Your task to perform on an android device: turn notification dots off Image 0: 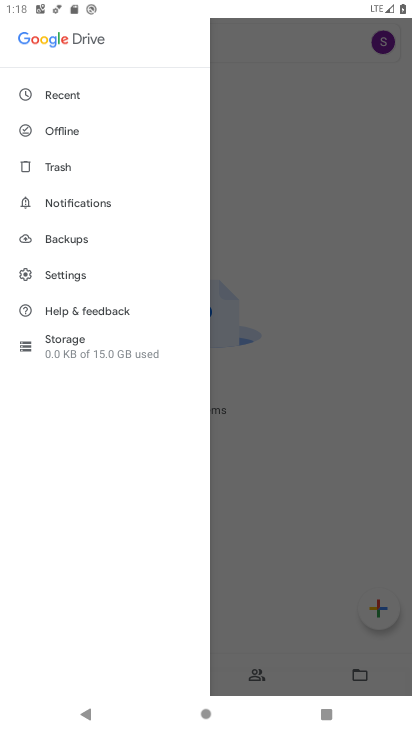
Step 0: press home button
Your task to perform on an android device: turn notification dots off Image 1: 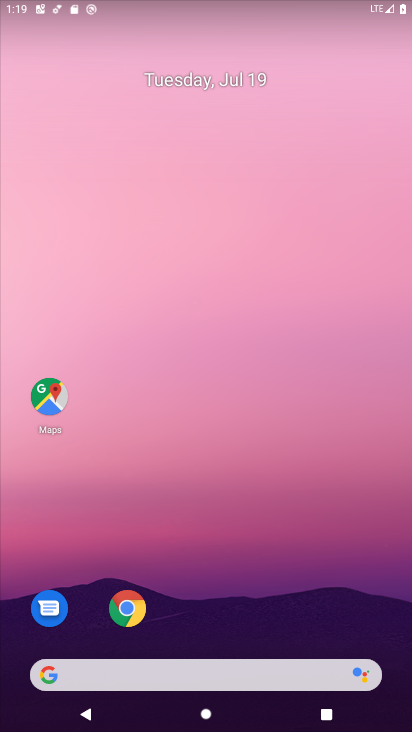
Step 1: drag from (267, 627) to (265, 208)
Your task to perform on an android device: turn notification dots off Image 2: 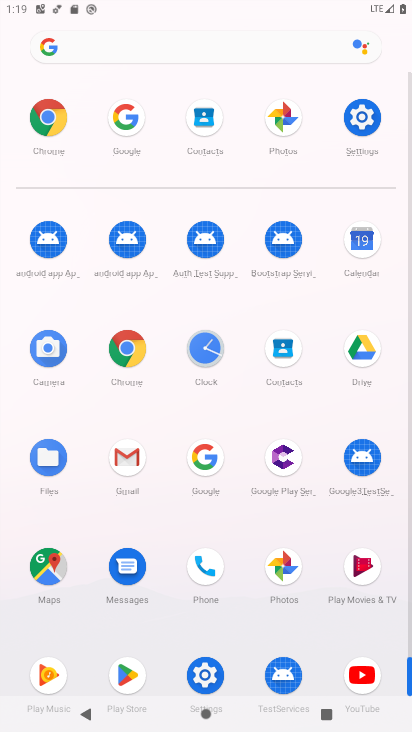
Step 2: click (199, 657)
Your task to perform on an android device: turn notification dots off Image 3: 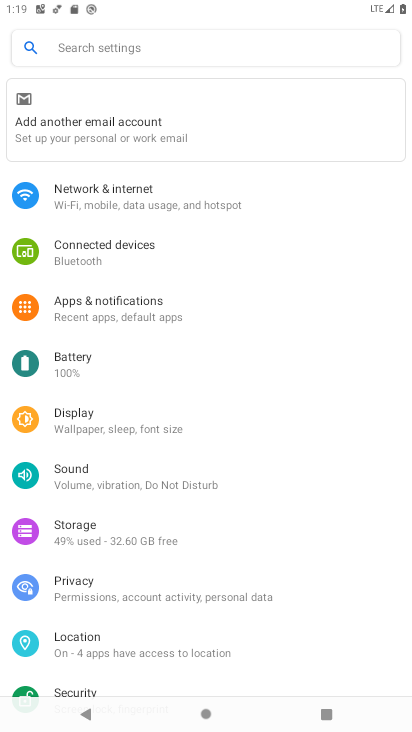
Step 3: click (151, 324)
Your task to perform on an android device: turn notification dots off Image 4: 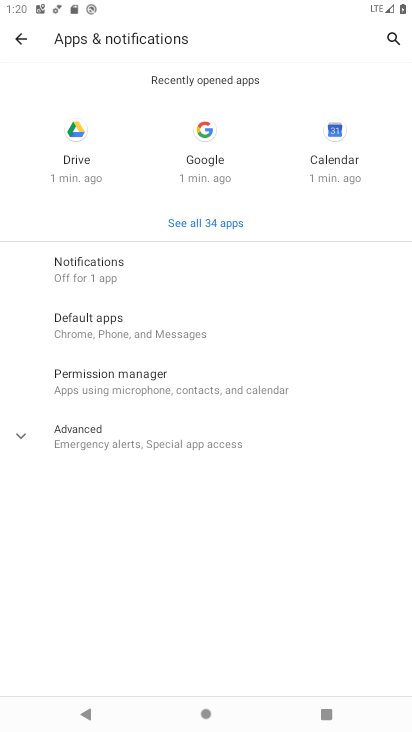
Step 4: click (122, 446)
Your task to perform on an android device: turn notification dots off Image 5: 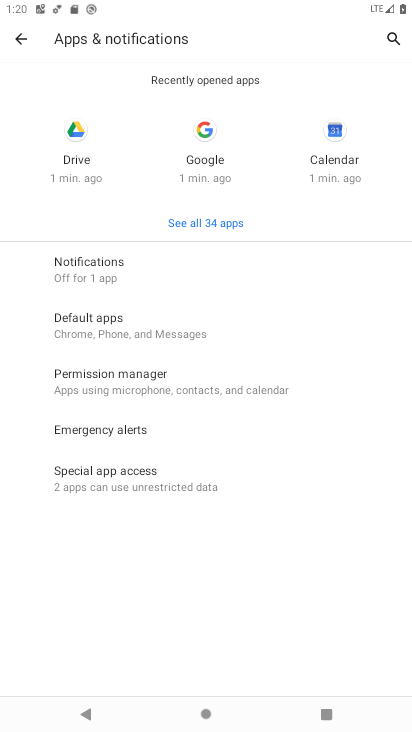
Step 5: drag from (121, 446) to (145, 271)
Your task to perform on an android device: turn notification dots off Image 6: 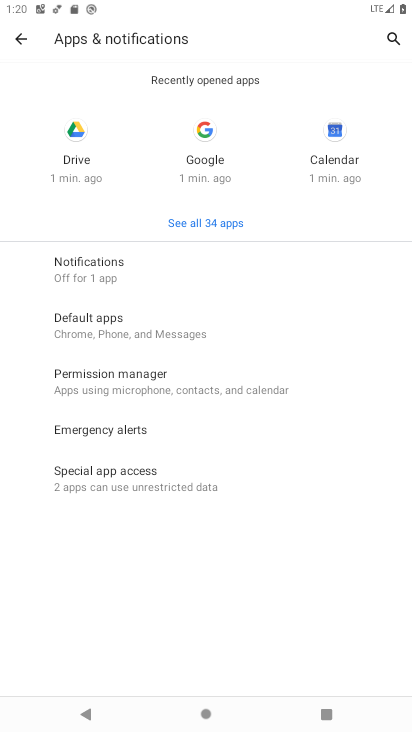
Step 6: click (136, 278)
Your task to perform on an android device: turn notification dots off Image 7: 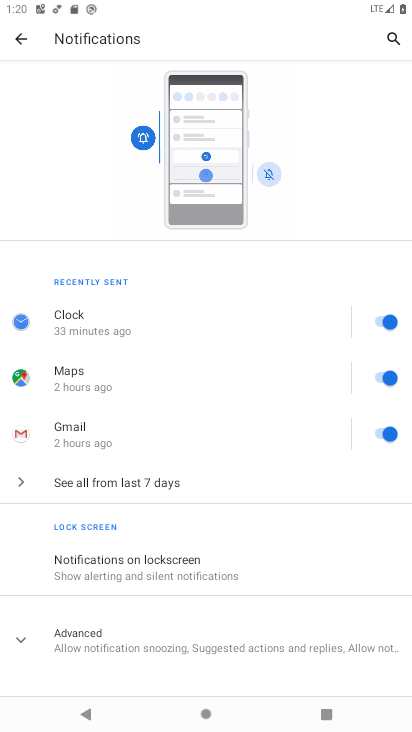
Step 7: click (68, 652)
Your task to perform on an android device: turn notification dots off Image 8: 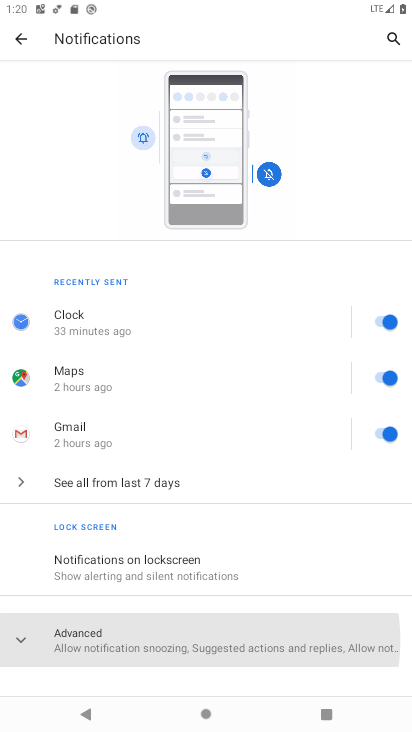
Step 8: drag from (76, 621) to (156, 274)
Your task to perform on an android device: turn notification dots off Image 9: 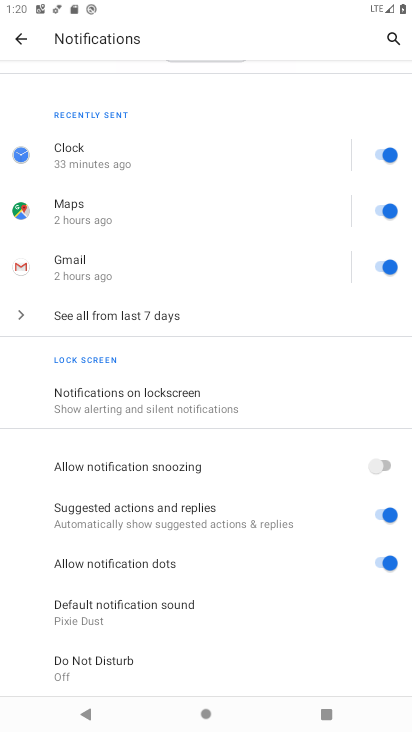
Step 9: click (389, 564)
Your task to perform on an android device: turn notification dots off Image 10: 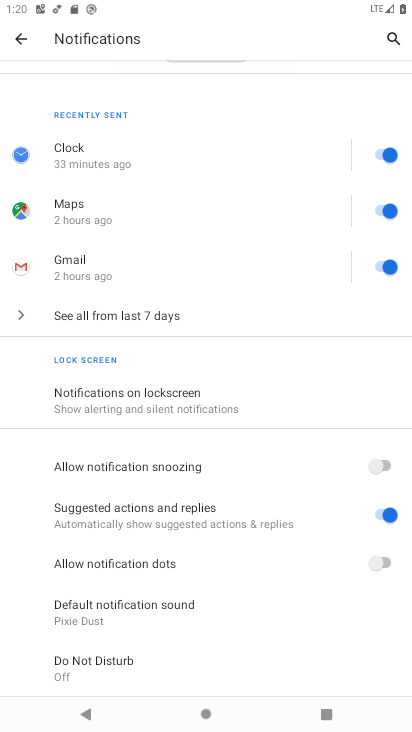
Step 10: task complete